Your task to perform on an android device: Go to network settings Image 0: 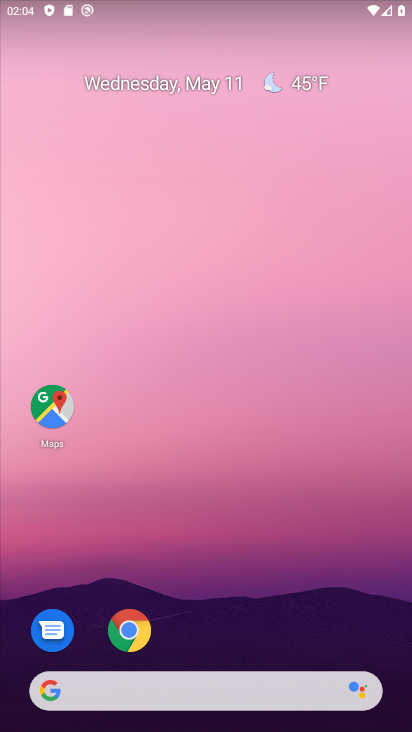
Step 0: drag from (210, 721) to (210, 265)
Your task to perform on an android device: Go to network settings Image 1: 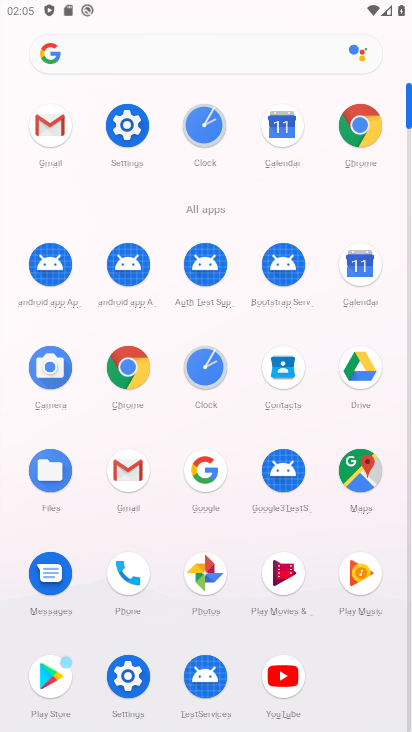
Step 1: click (127, 124)
Your task to perform on an android device: Go to network settings Image 2: 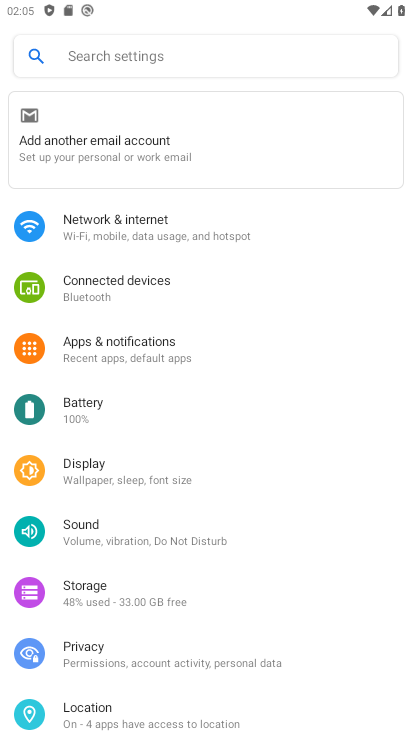
Step 2: click (124, 225)
Your task to perform on an android device: Go to network settings Image 3: 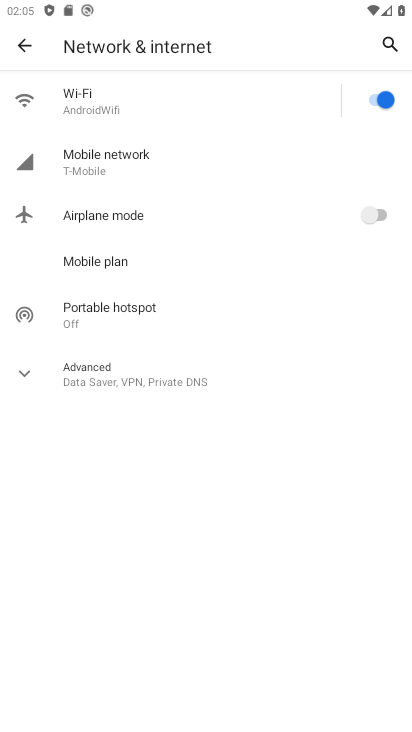
Step 3: click (100, 163)
Your task to perform on an android device: Go to network settings Image 4: 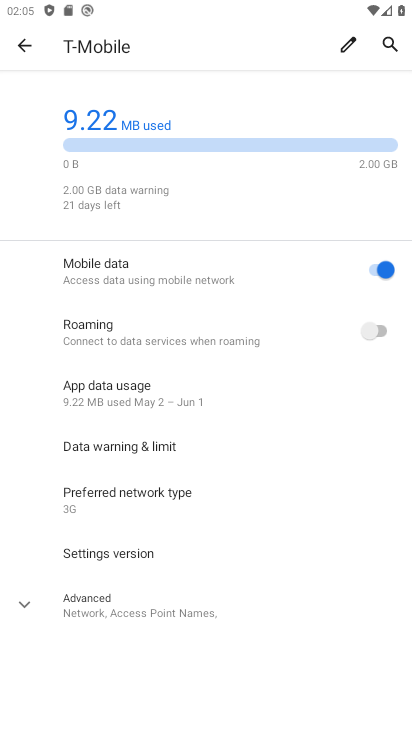
Step 4: task complete